Your task to perform on an android device: snooze an email in the gmail app Image 0: 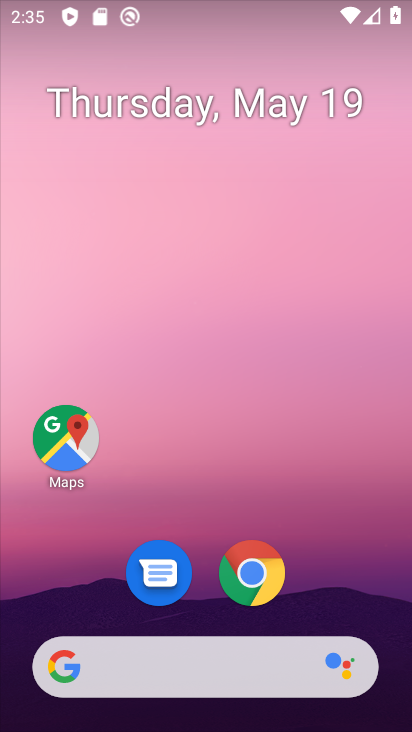
Step 0: drag from (292, 497) to (311, 0)
Your task to perform on an android device: snooze an email in the gmail app Image 1: 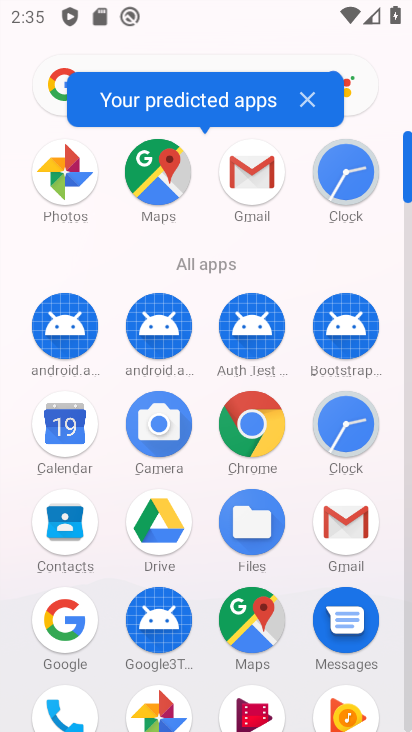
Step 1: click (245, 186)
Your task to perform on an android device: snooze an email in the gmail app Image 2: 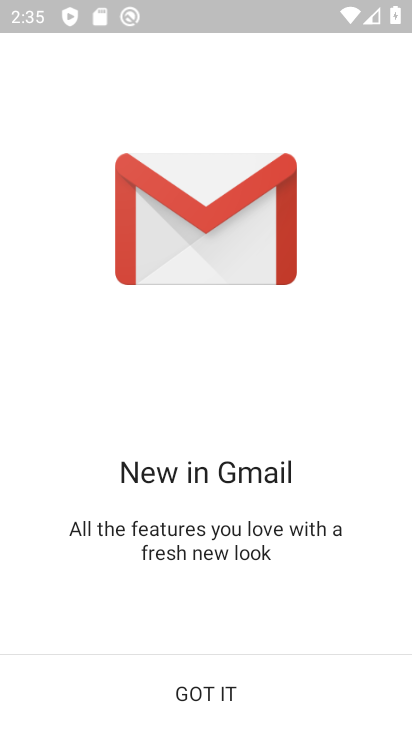
Step 2: click (212, 674)
Your task to perform on an android device: snooze an email in the gmail app Image 3: 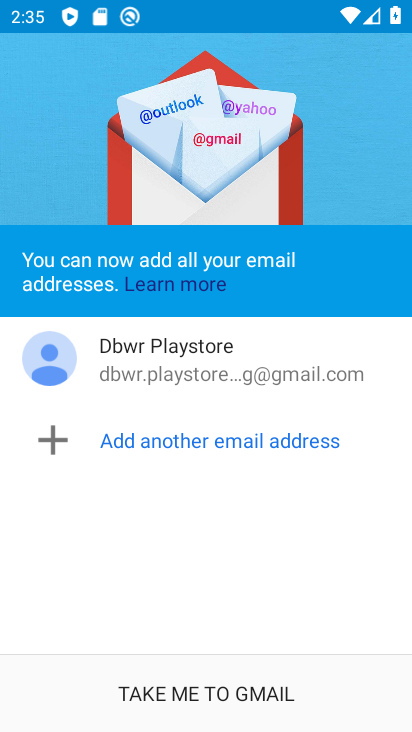
Step 3: click (242, 687)
Your task to perform on an android device: snooze an email in the gmail app Image 4: 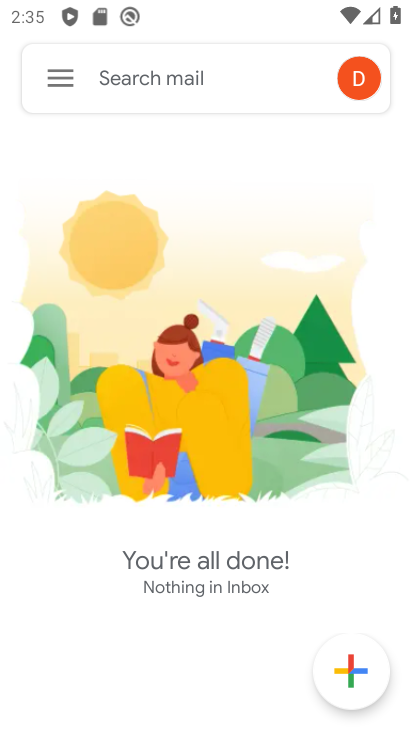
Step 4: click (41, 68)
Your task to perform on an android device: snooze an email in the gmail app Image 5: 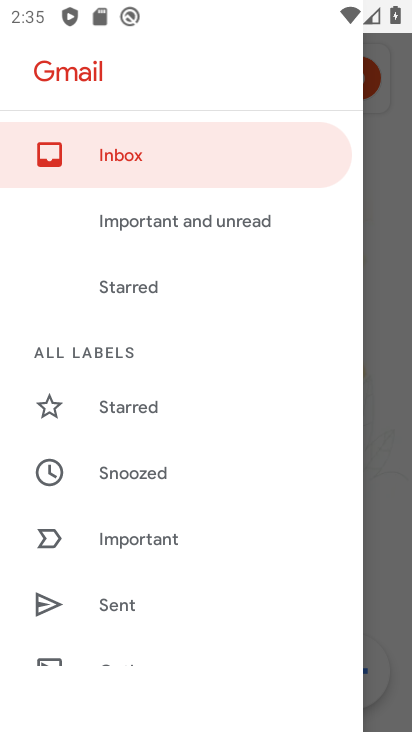
Step 5: click (147, 474)
Your task to perform on an android device: snooze an email in the gmail app Image 6: 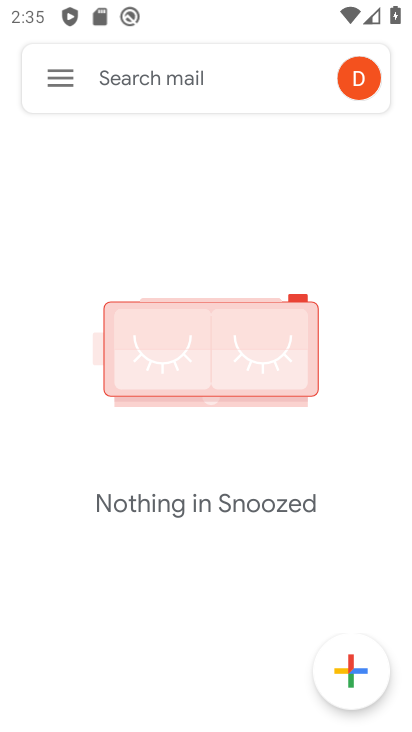
Step 6: task complete